Your task to perform on an android device: Go to sound settings Image 0: 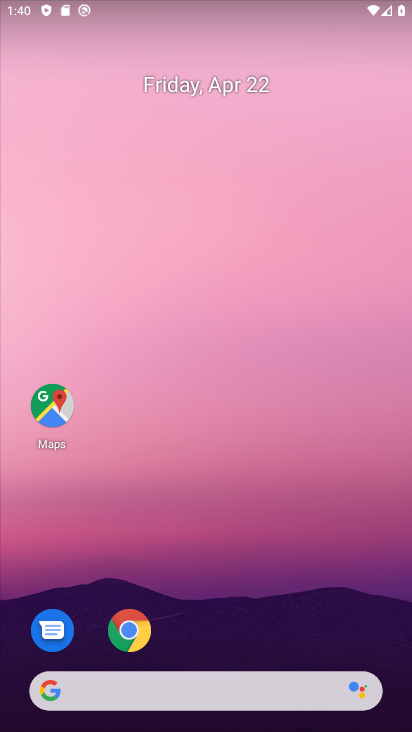
Step 0: drag from (211, 542) to (260, 146)
Your task to perform on an android device: Go to sound settings Image 1: 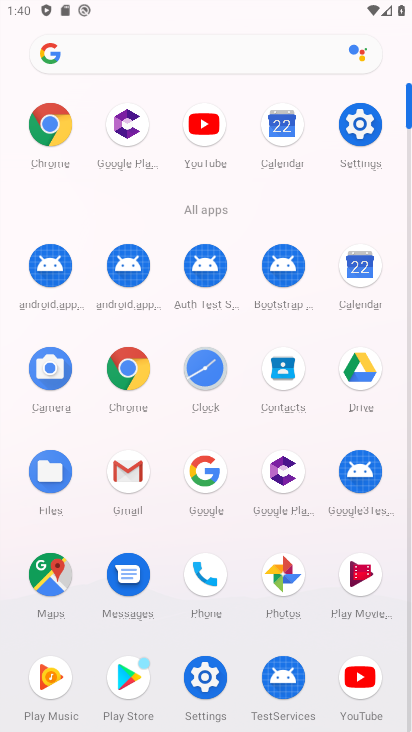
Step 1: click (384, 118)
Your task to perform on an android device: Go to sound settings Image 2: 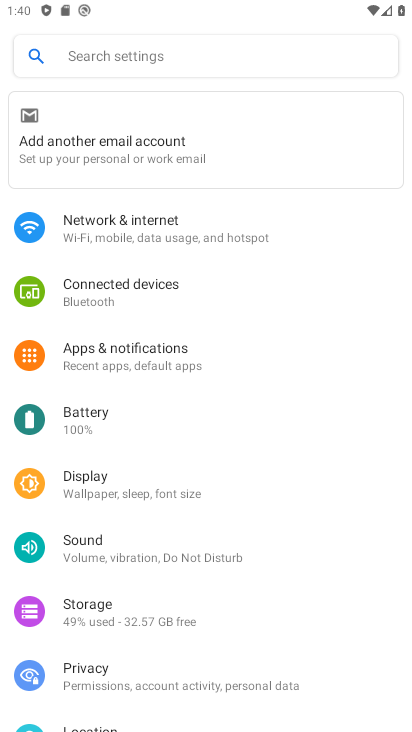
Step 2: click (148, 548)
Your task to perform on an android device: Go to sound settings Image 3: 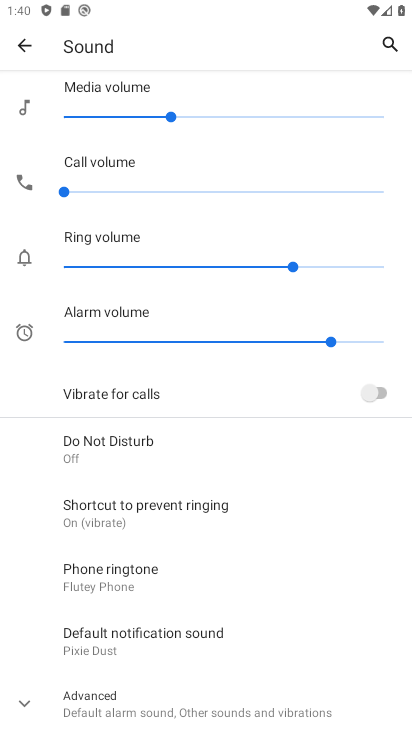
Step 3: task complete